Your task to perform on an android device: Show me recent news Image 0: 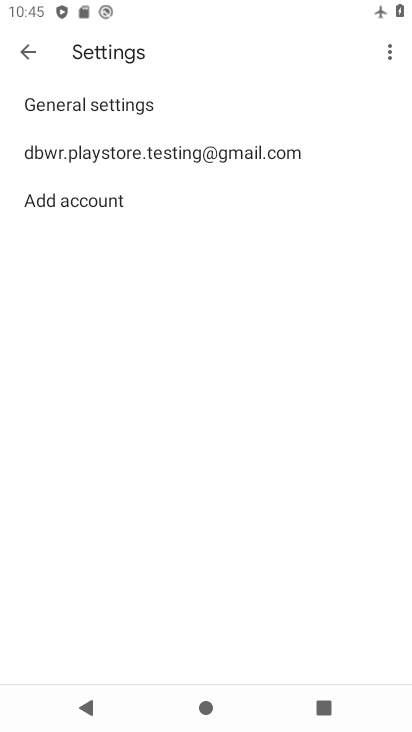
Step 0: press home button
Your task to perform on an android device: Show me recent news Image 1: 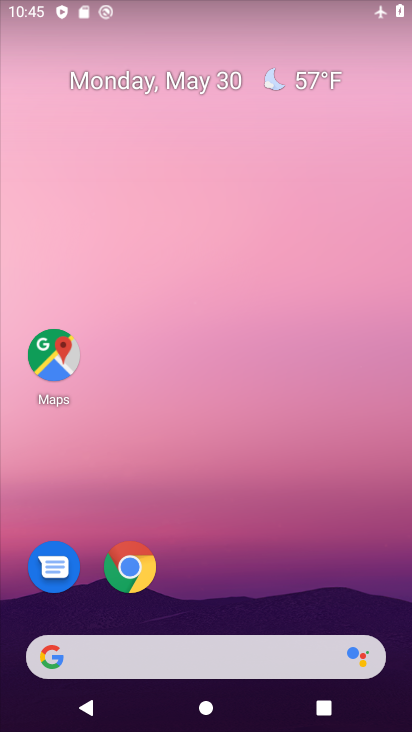
Step 1: drag from (210, 616) to (216, 158)
Your task to perform on an android device: Show me recent news Image 2: 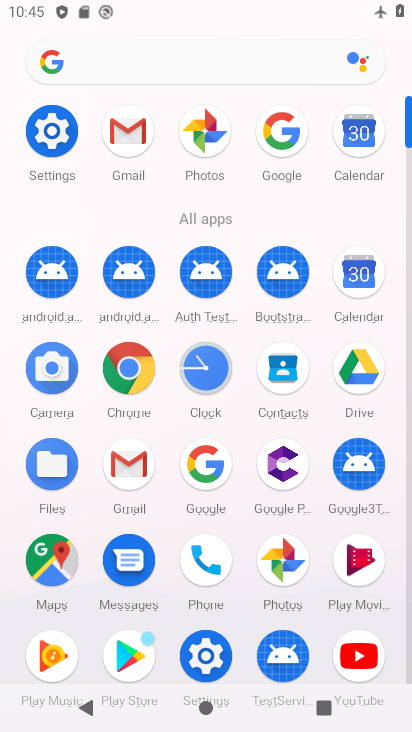
Step 2: click (192, 485)
Your task to perform on an android device: Show me recent news Image 3: 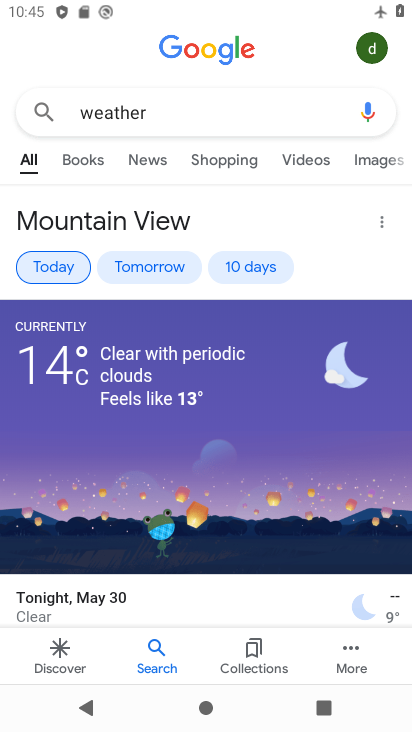
Step 3: click (172, 107)
Your task to perform on an android device: Show me recent news Image 4: 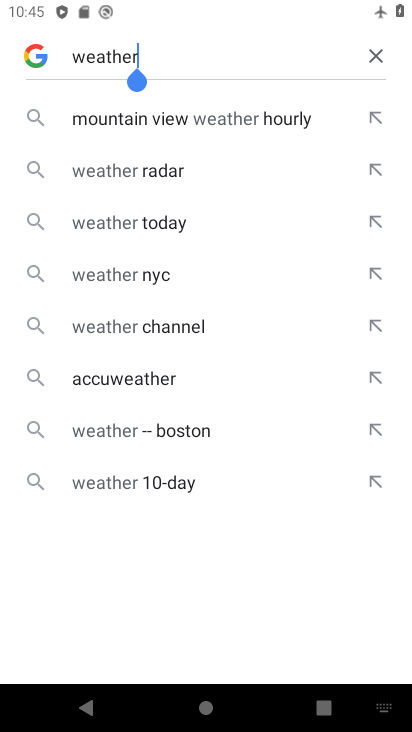
Step 4: click (368, 60)
Your task to perform on an android device: Show me recent news Image 5: 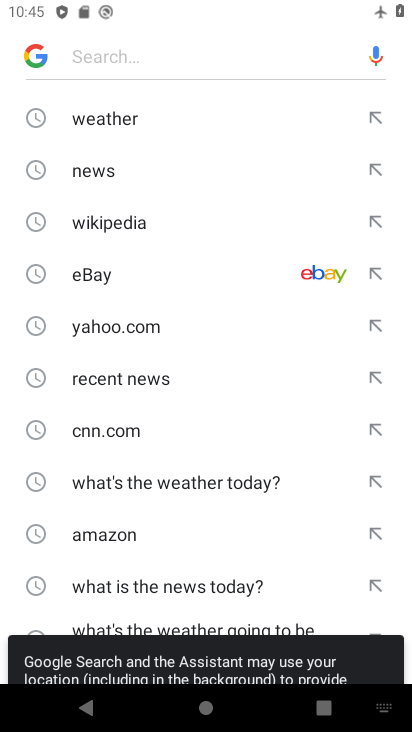
Step 5: click (135, 168)
Your task to perform on an android device: Show me recent news Image 6: 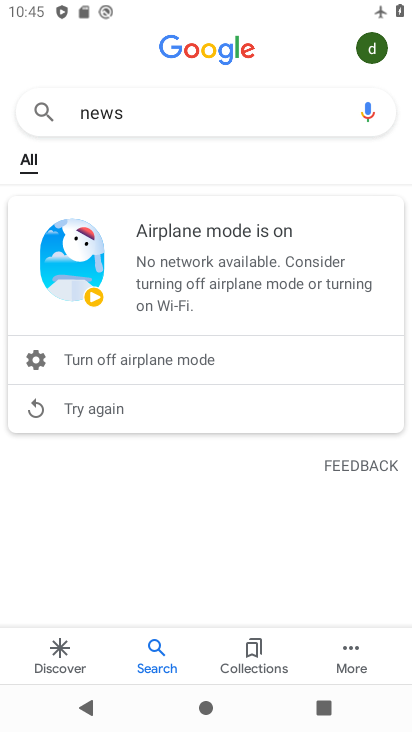
Step 6: task complete